Your task to perform on an android device: open app "Walmart Shopping & Grocery" (install if not already installed) and go to login screen Image 0: 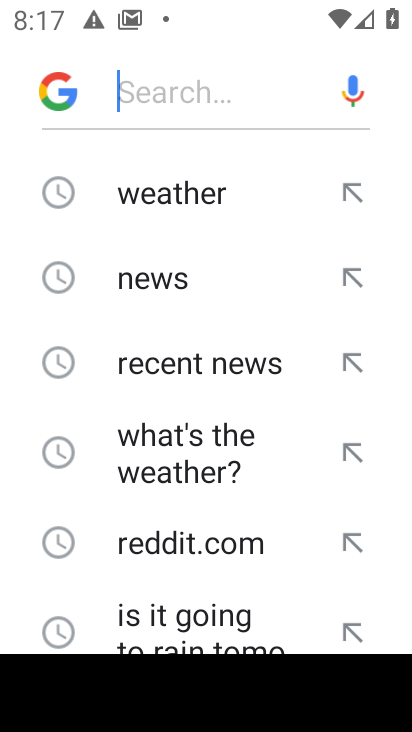
Step 0: press home button
Your task to perform on an android device: open app "Walmart Shopping & Grocery" (install if not already installed) and go to login screen Image 1: 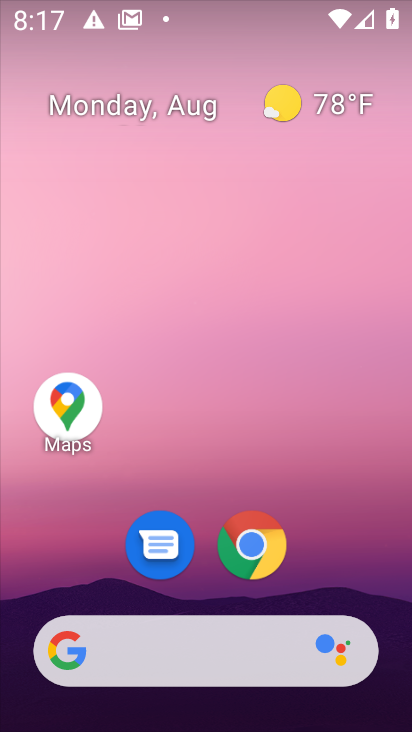
Step 1: drag from (358, 580) to (372, 70)
Your task to perform on an android device: open app "Walmart Shopping & Grocery" (install if not already installed) and go to login screen Image 2: 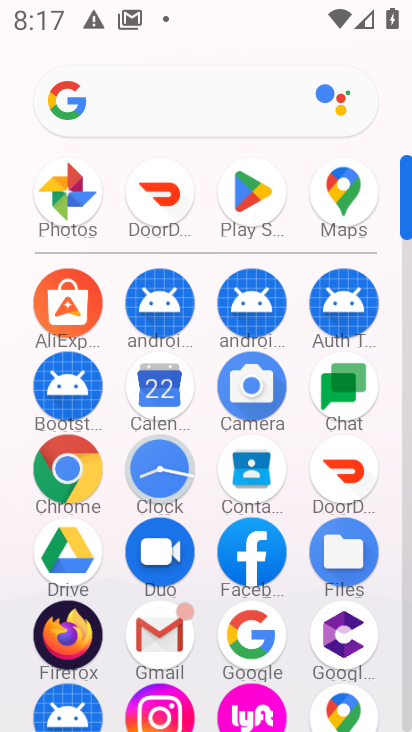
Step 2: click (248, 193)
Your task to perform on an android device: open app "Walmart Shopping & Grocery" (install if not already installed) and go to login screen Image 3: 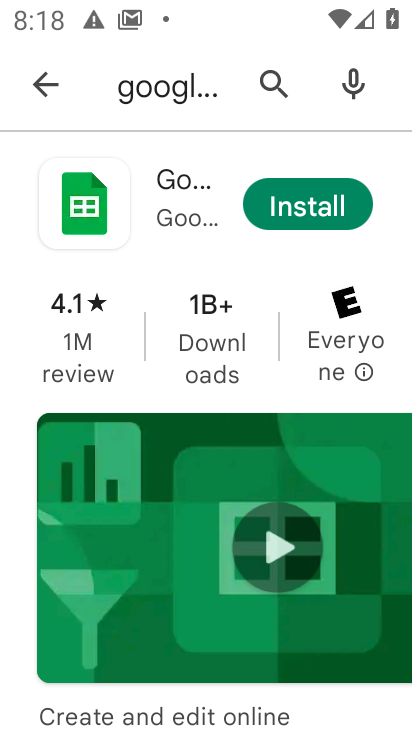
Step 3: press back button
Your task to perform on an android device: open app "Walmart Shopping & Grocery" (install if not already installed) and go to login screen Image 4: 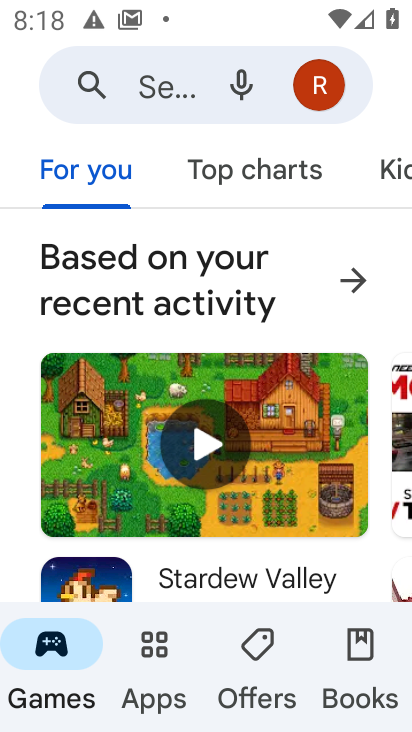
Step 4: click (155, 92)
Your task to perform on an android device: open app "Walmart Shopping & Grocery" (install if not already installed) and go to login screen Image 5: 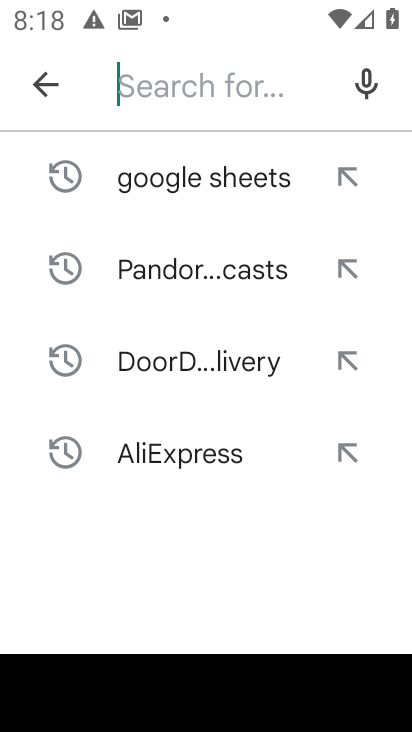
Step 5: type "Walmart Shopping & Grocery"
Your task to perform on an android device: open app "Walmart Shopping & Grocery" (install if not already installed) and go to login screen Image 6: 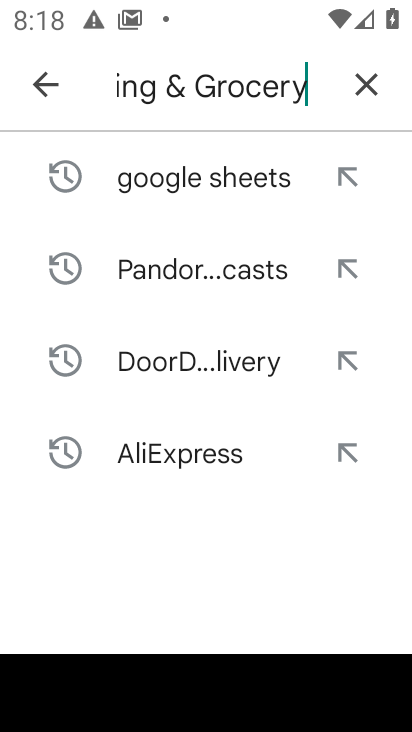
Step 6: press enter
Your task to perform on an android device: open app "Walmart Shopping & Grocery" (install if not already installed) and go to login screen Image 7: 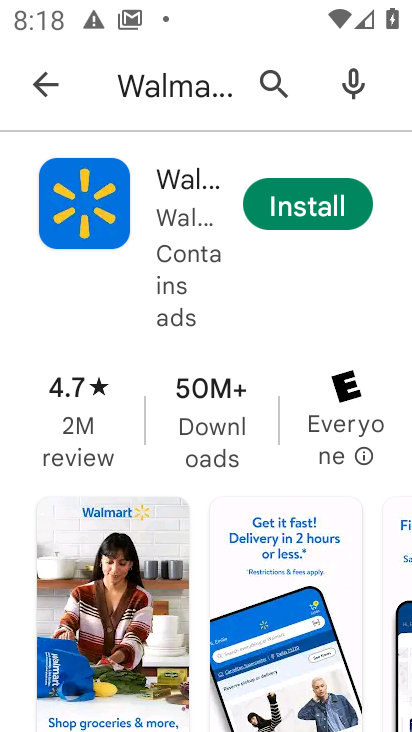
Step 7: click (315, 203)
Your task to perform on an android device: open app "Walmart Shopping & Grocery" (install if not already installed) and go to login screen Image 8: 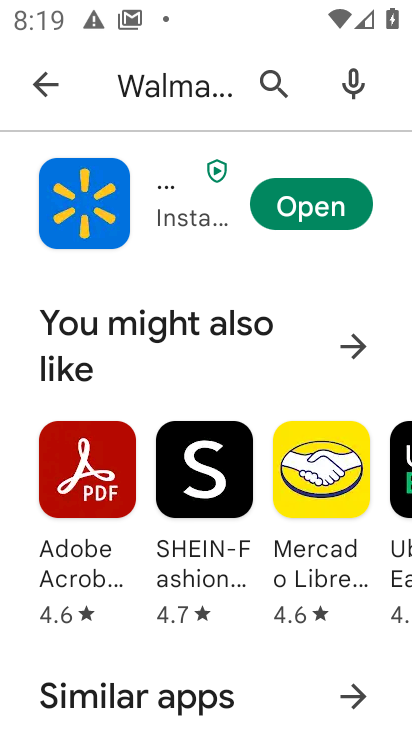
Step 8: click (330, 207)
Your task to perform on an android device: open app "Walmart Shopping & Grocery" (install if not already installed) and go to login screen Image 9: 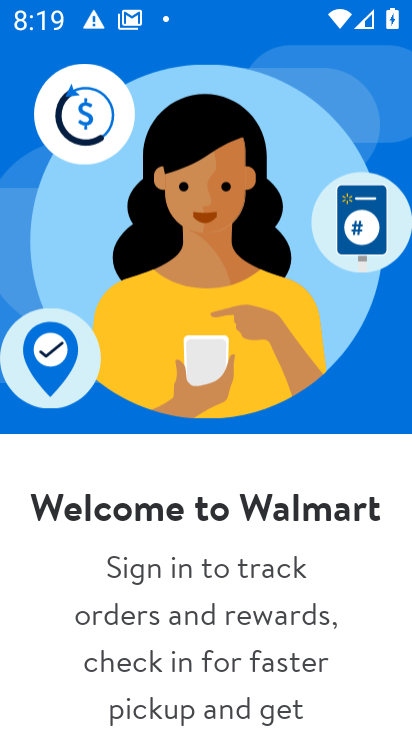
Step 9: task complete